Your task to perform on an android device: turn vacation reply on in the gmail app Image 0: 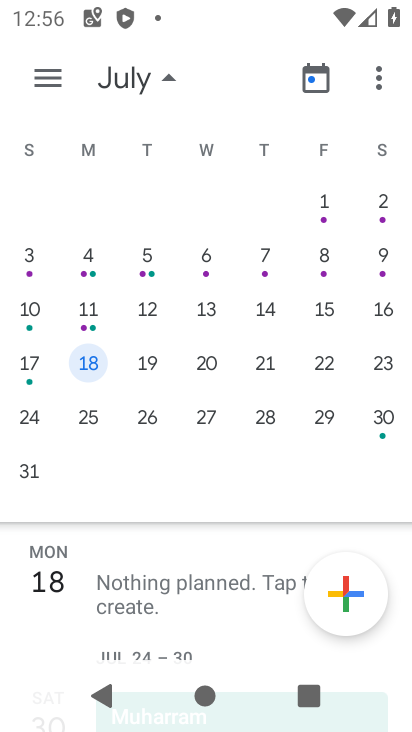
Step 0: press back button
Your task to perform on an android device: turn vacation reply on in the gmail app Image 1: 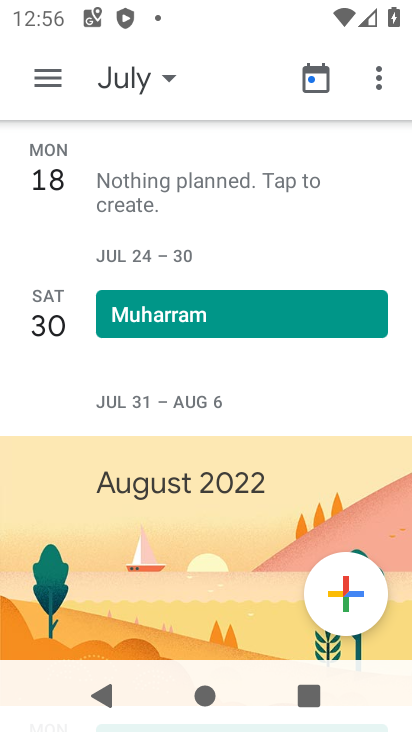
Step 1: press back button
Your task to perform on an android device: turn vacation reply on in the gmail app Image 2: 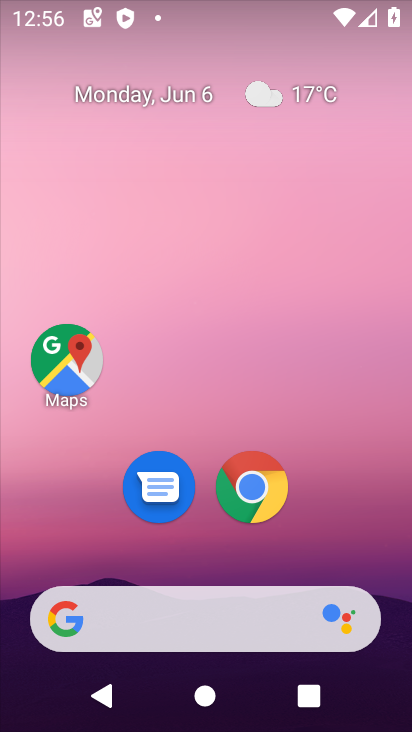
Step 2: drag from (169, 563) to (222, 7)
Your task to perform on an android device: turn vacation reply on in the gmail app Image 3: 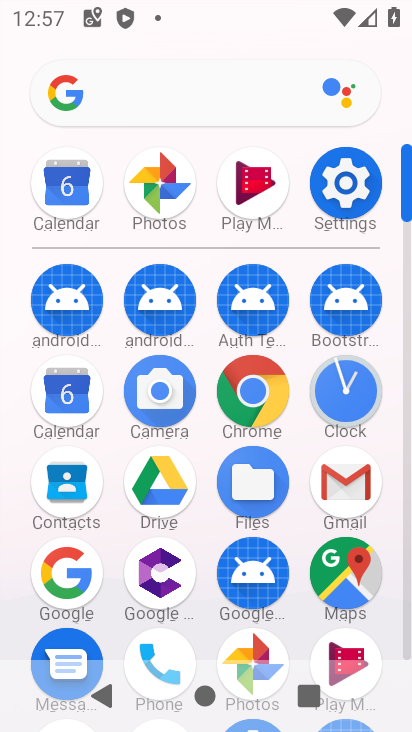
Step 3: click (340, 469)
Your task to perform on an android device: turn vacation reply on in the gmail app Image 4: 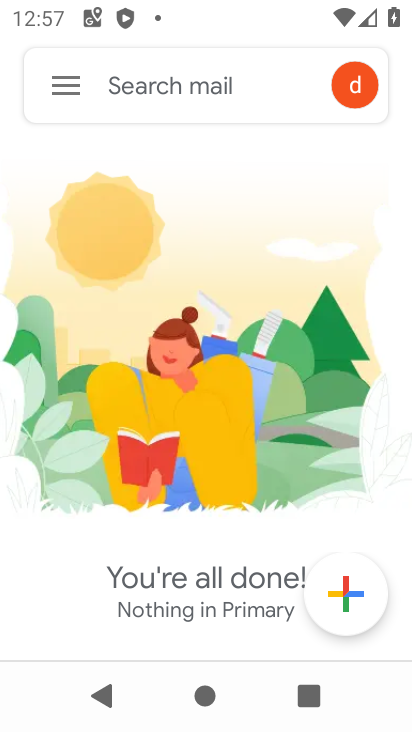
Step 4: click (60, 80)
Your task to perform on an android device: turn vacation reply on in the gmail app Image 5: 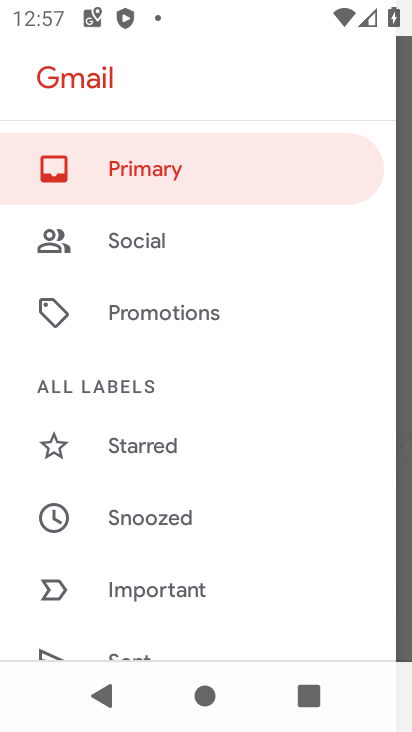
Step 5: drag from (252, 586) to (317, 20)
Your task to perform on an android device: turn vacation reply on in the gmail app Image 6: 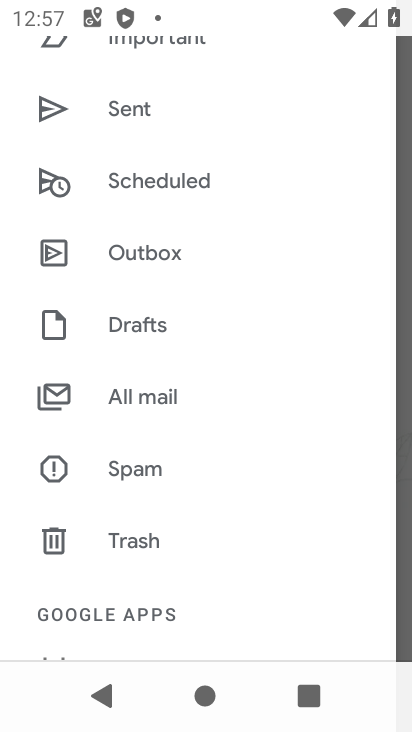
Step 6: drag from (208, 613) to (246, 116)
Your task to perform on an android device: turn vacation reply on in the gmail app Image 7: 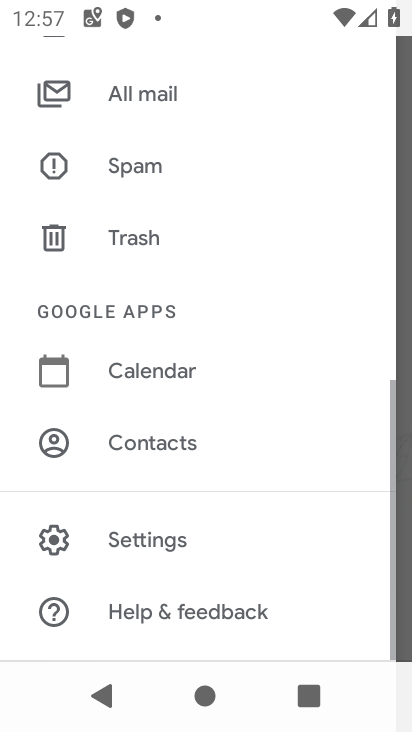
Step 7: click (169, 523)
Your task to perform on an android device: turn vacation reply on in the gmail app Image 8: 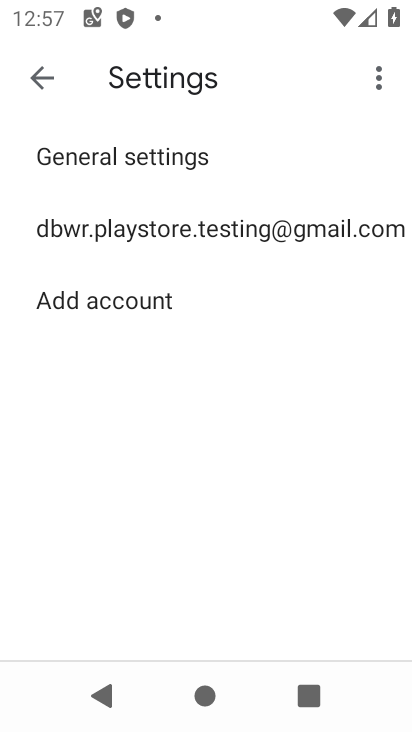
Step 8: click (97, 223)
Your task to perform on an android device: turn vacation reply on in the gmail app Image 9: 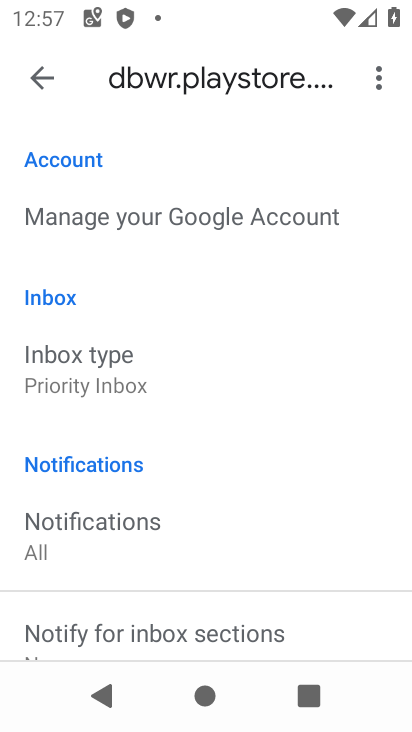
Step 9: task complete